Your task to perform on an android device: Open Yahoo.com Image 0: 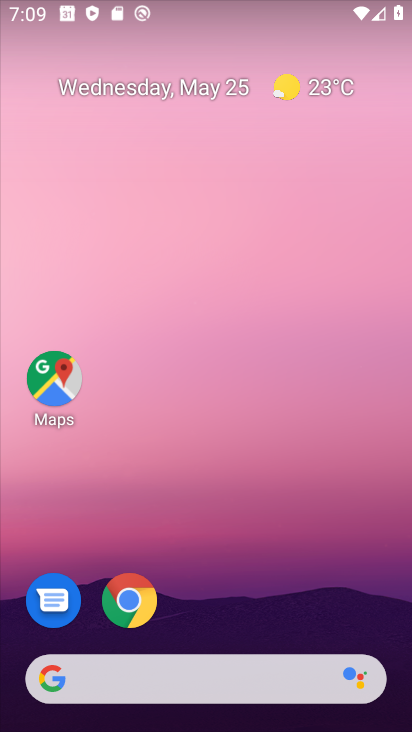
Step 0: click (130, 602)
Your task to perform on an android device: Open Yahoo.com Image 1: 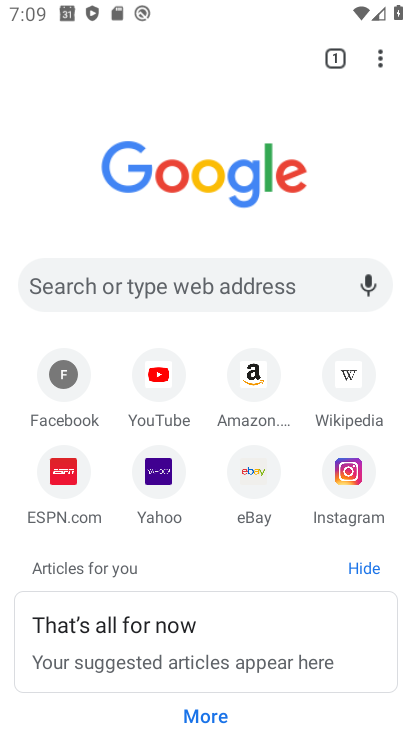
Step 1: click (257, 284)
Your task to perform on an android device: Open Yahoo.com Image 2: 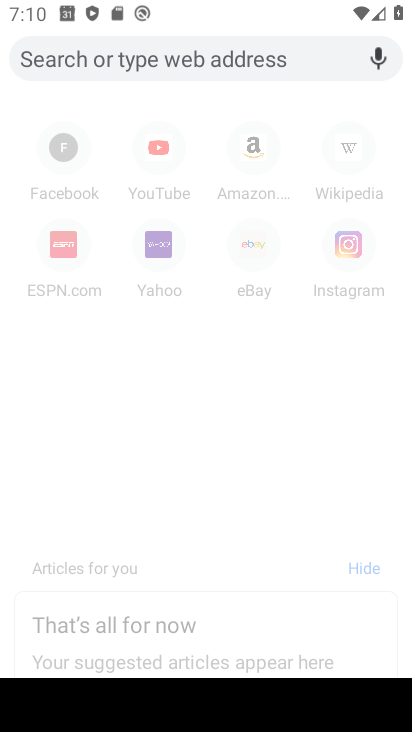
Step 2: type "Yahoo.com"
Your task to perform on an android device: Open Yahoo.com Image 3: 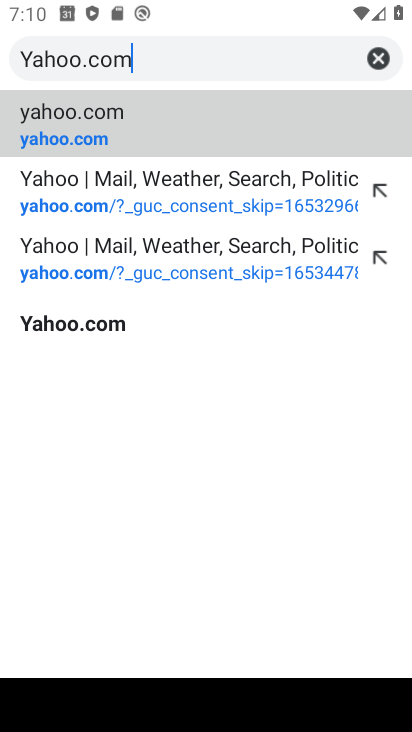
Step 3: click (93, 326)
Your task to perform on an android device: Open Yahoo.com Image 4: 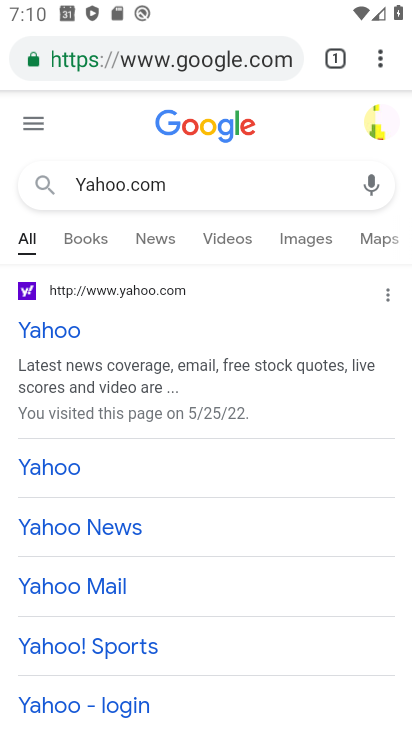
Step 4: click (63, 335)
Your task to perform on an android device: Open Yahoo.com Image 5: 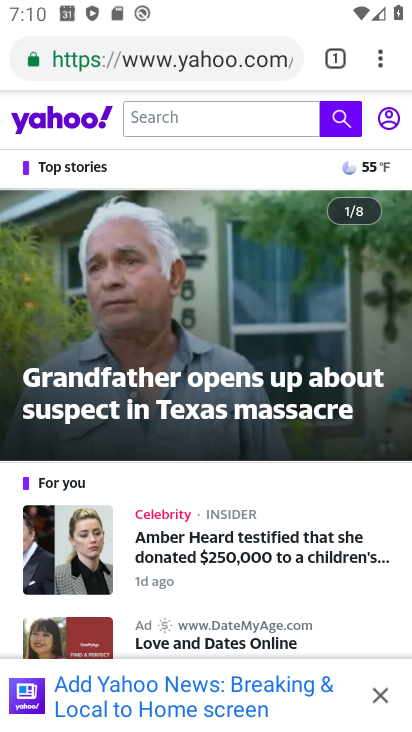
Step 5: task complete